Your task to perform on an android device: toggle notifications settings in the gmail app Image 0: 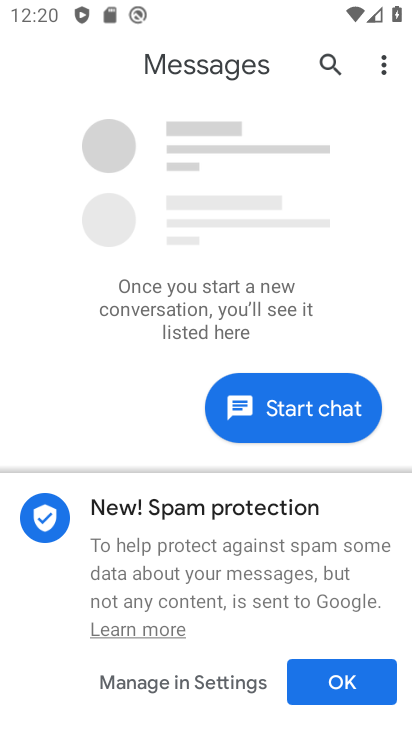
Step 0: press back button
Your task to perform on an android device: toggle notifications settings in the gmail app Image 1: 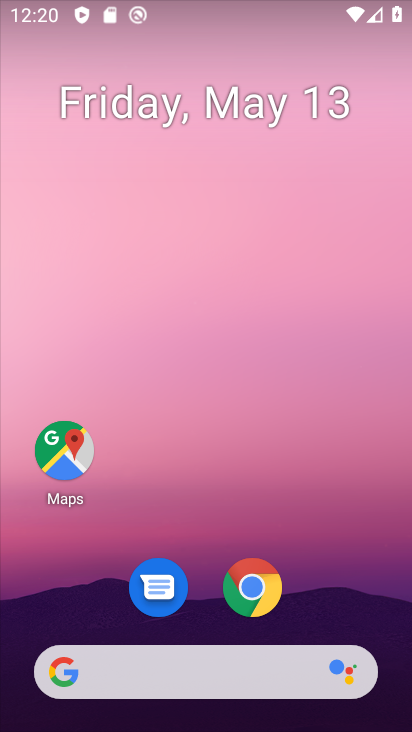
Step 1: drag from (238, 631) to (285, 113)
Your task to perform on an android device: toggle notifications settings in the gmail app Image 2: 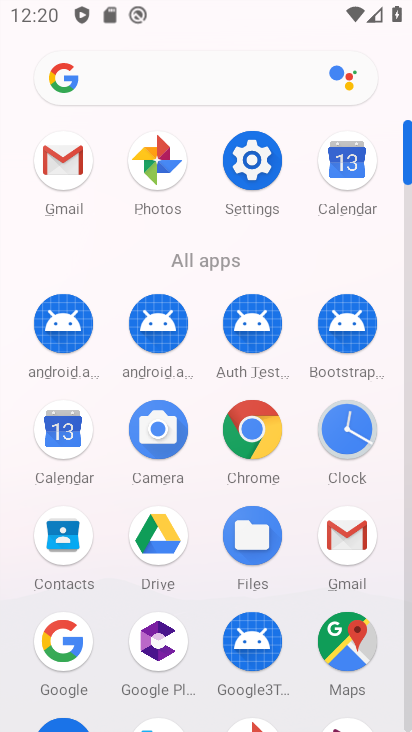
Step 2: click (53, 155)
Your task to perform on an android device: toggle notifications settings in the gmail app Image 3: 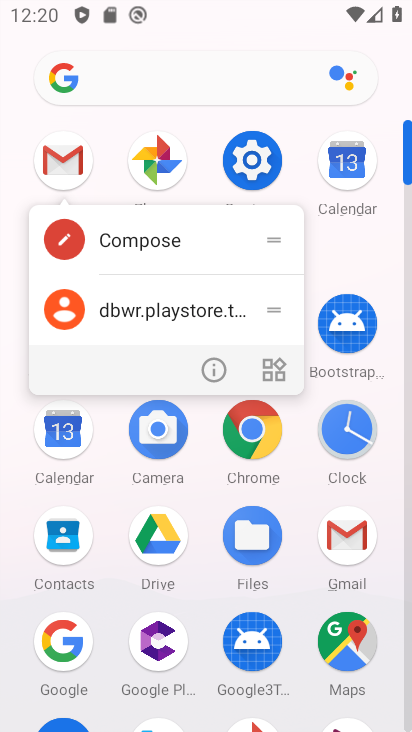
Step 3: click (218, 364)
Your task to perform on an android device: toggle notifications settings in the gmail app Image 4: 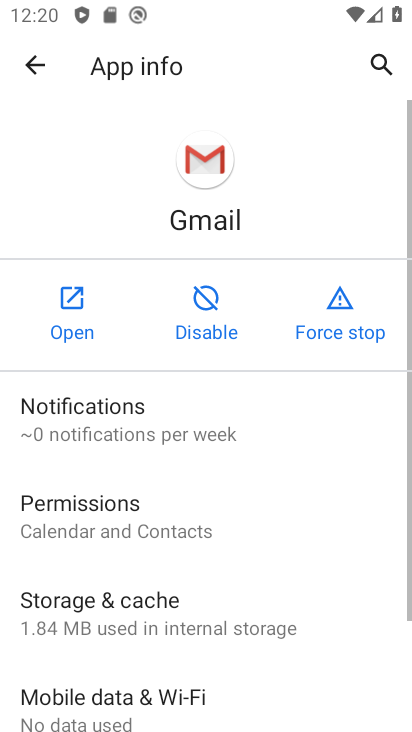
Step 4: click (205, 429)
Your task to perform on an android device: toggle notifications settings in the gmail app Image 5: 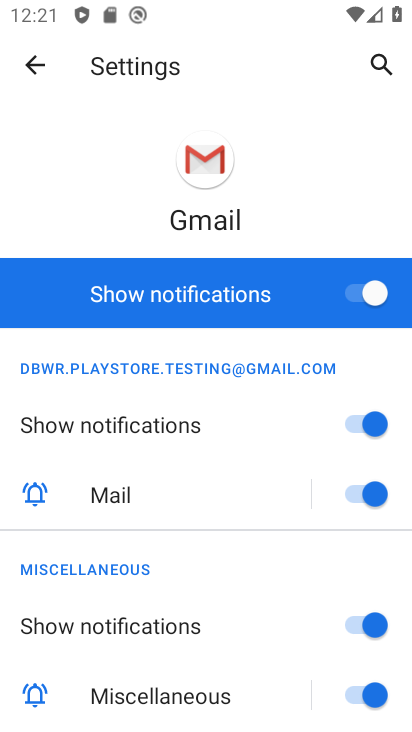
Step 5: click (377, 290)
Your task to perform on an android device: toggle notifications settings in the gmail app Image 6: 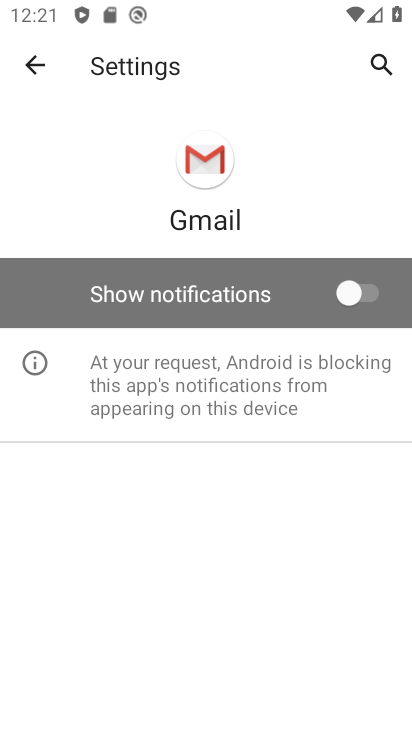
Step 6: task complete